Your task to perform on an android device: move a message to another label in the gmail app Image 0: 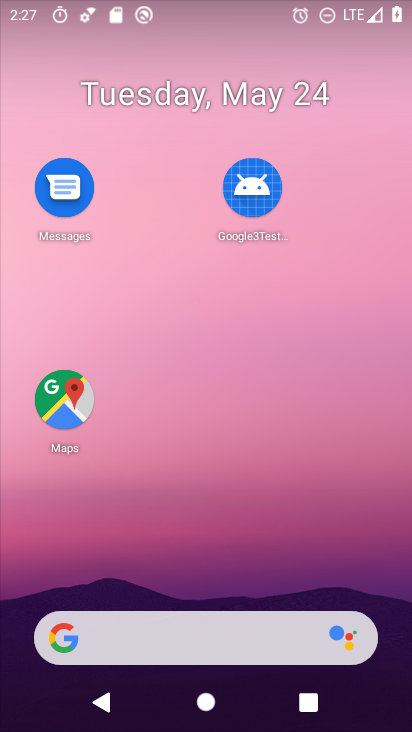
Step 0: press home button
Your task to perform on an android device: move a message to another label in the gmail app Image 1: 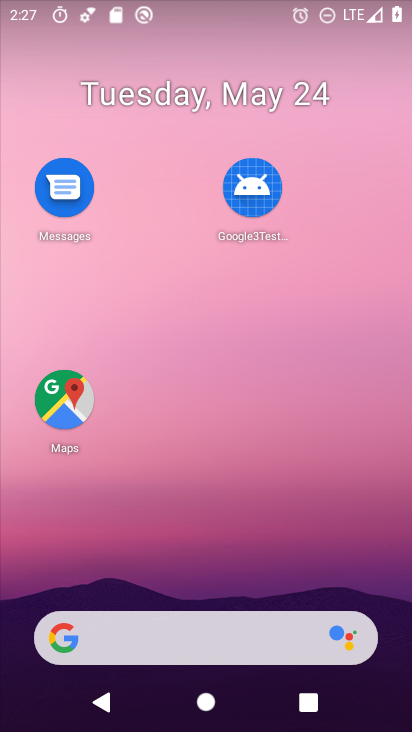
Step 1: drag from (183, 325) to (115, 2)
Your task to perform on an android device: move a message to another label in the gmail app Image 2: 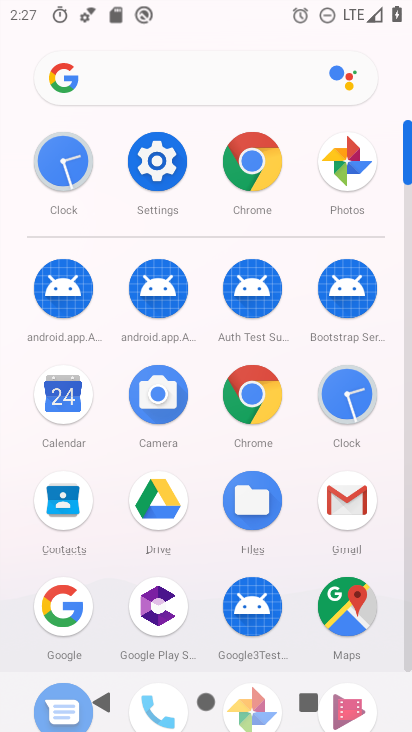
Step 2: click (359, 508)
Your task to perform on an android device: move a message to another label in the gmail app Image 3: 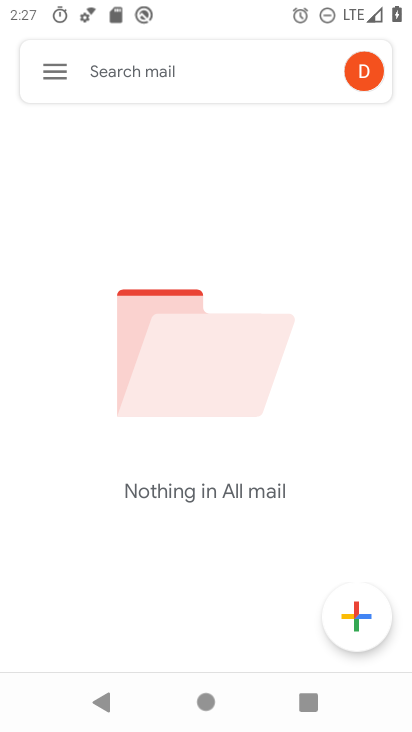
Step 3: click (52, 70)
Your task to perform on an android device: move a message to another label in the gmail app Image 4: 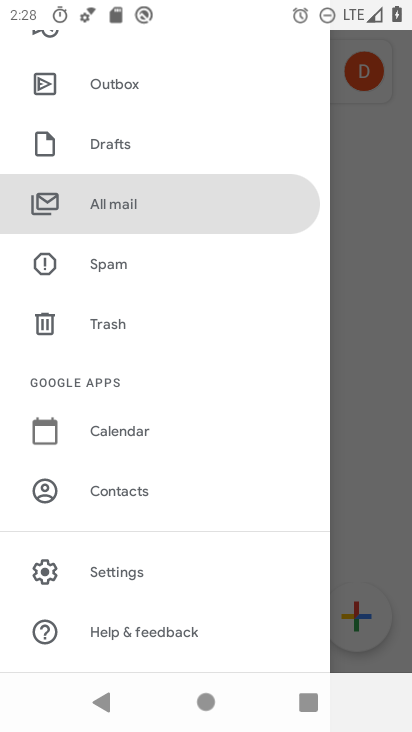
Step 4: click (130, 206)
Your task to perform on an android device: move a message to another label in the gmail app Image 5: 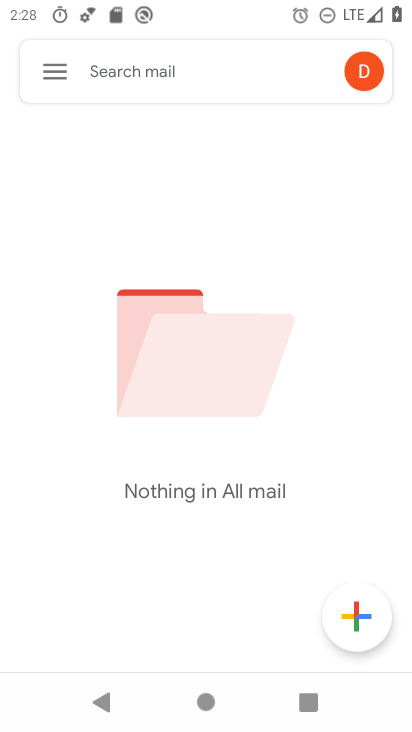
Step 5: task complete